Your task to perform on an android device: Open internet settings Image 0: 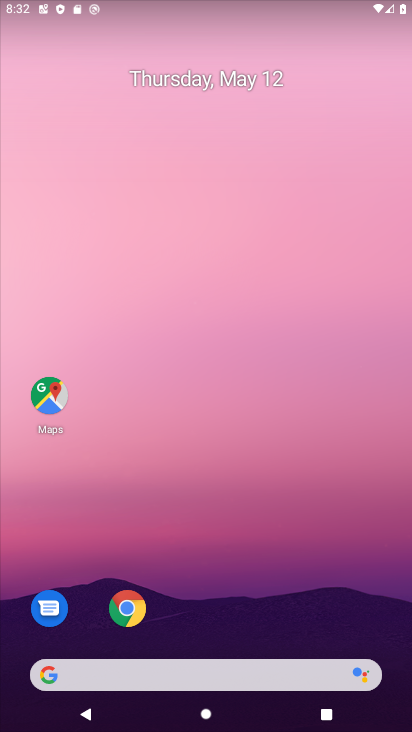
Step 0: drag from (155, 646) to (284, 99)
Your task to perform on an android device: Open internet settings Image 1: 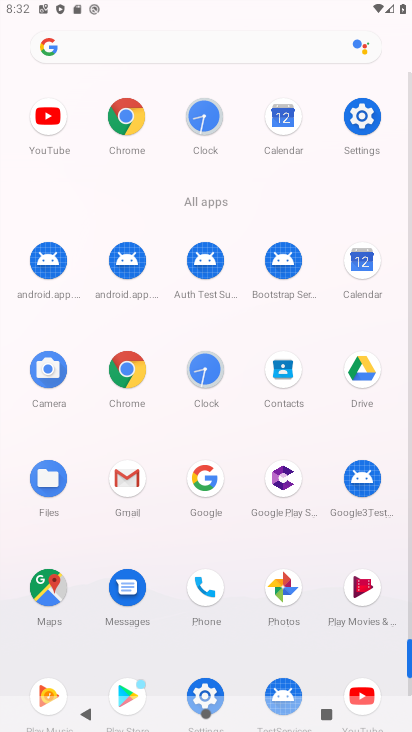
Step 1: drag from (182, 658) to (217, 472)
Your task to perform on an android device: Open internet settings Image 2: 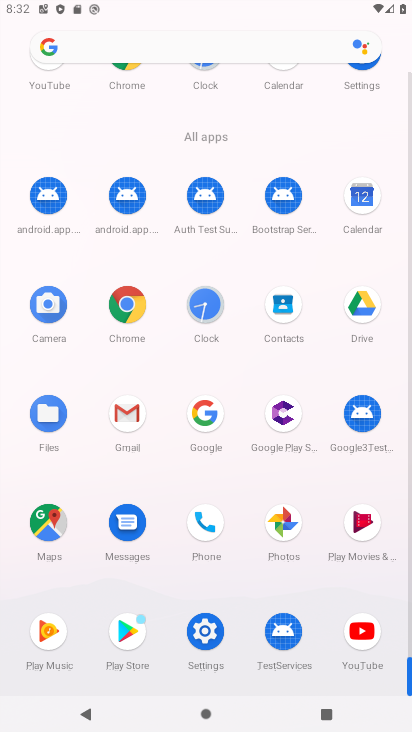
Step 2: click (205, 629)
Your task to perform on an android device: Open internet settings Image 3: 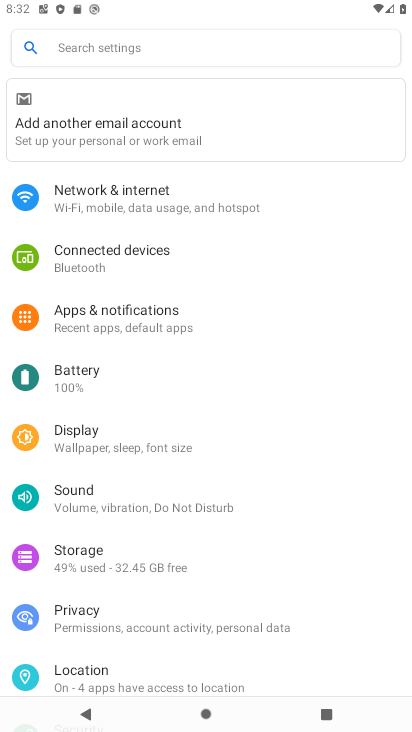
Step 3: click (202, 205)
Your task to perform on an android device: Open internet settings Image 4: 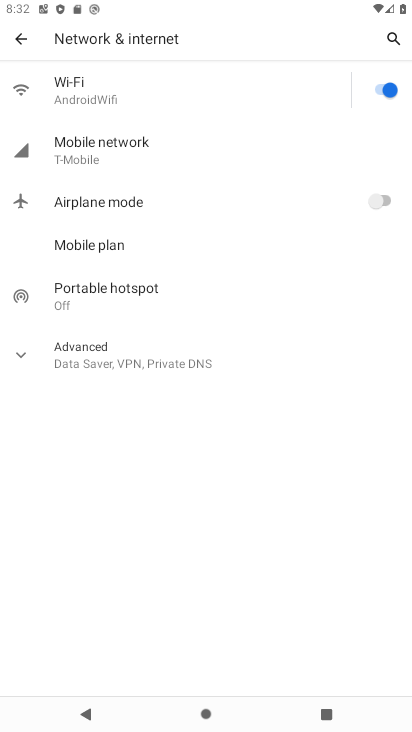
Step 4: click (174, 163)
Your task to perform on an android device: Open internet settings Image 5: 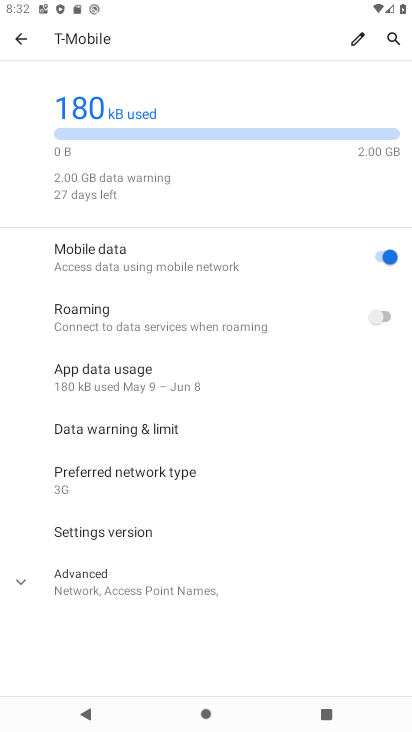
Step 5: task complete